Your task to perform on an android device: turn off location history Image 0: 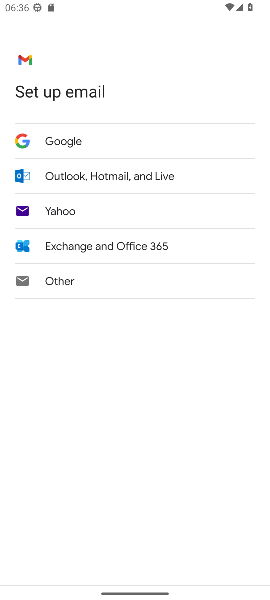
Step 0: press home button
Your task to perform on an android device: turn off location history Image 1: 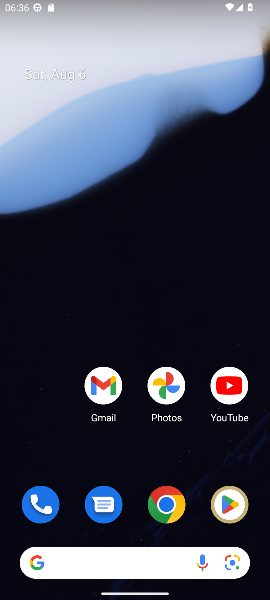
Step 1: drag from (127, 555) to (191, 204)
Your task to perform on an android device: turn off location history Image 2: 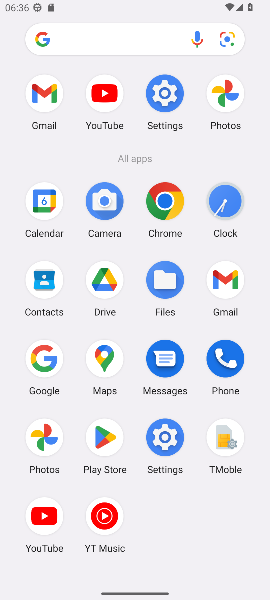
Step 2: click (163, 95)
Your task to perform on an android device: turn off location history Image 3: 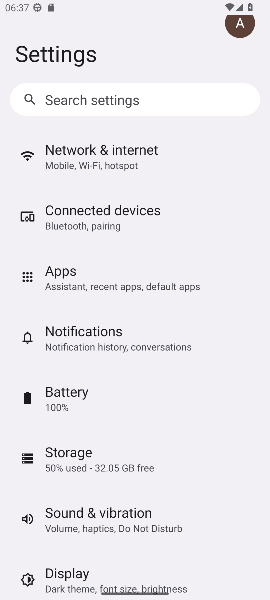
Step 3: drag from (119, 315) to (168, 248)
Your task to perform on an android device: turn off location history Image 4: 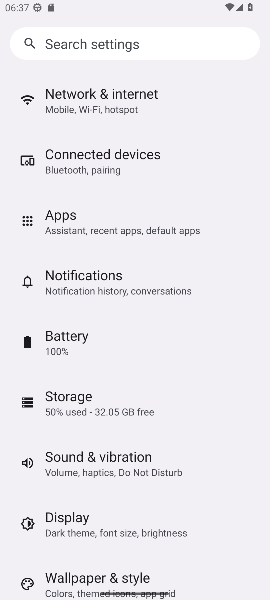
Step 4: drag from (161, 428) to (202, 351)
Your task to perform on an android device: turn off location history Image 5: 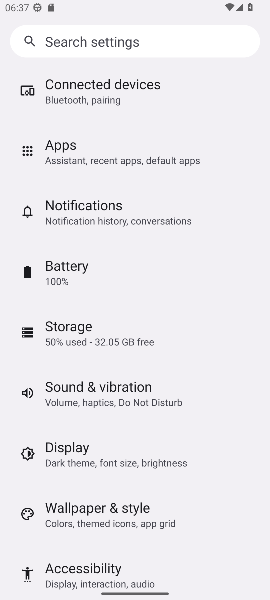
Step 5: drag from (122, 475) to (164, 416)
Your task to perform on an android device: turn off location history Image 6: 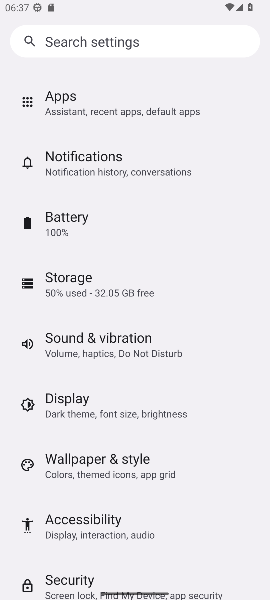
Step 6: drag from (130, 403) to (164, 319)
Your task to perform on an android device: turn off location history Image 7: 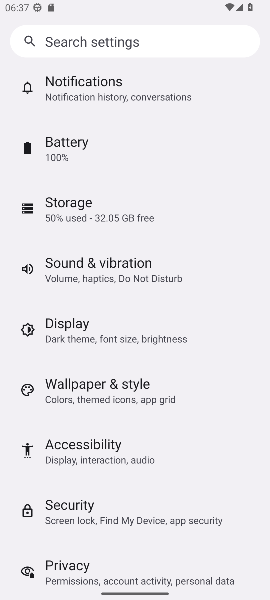
Step 7: drag from (112, 487) to (165, 401)
Your task to perform on an android device: turn off location history Image 8: 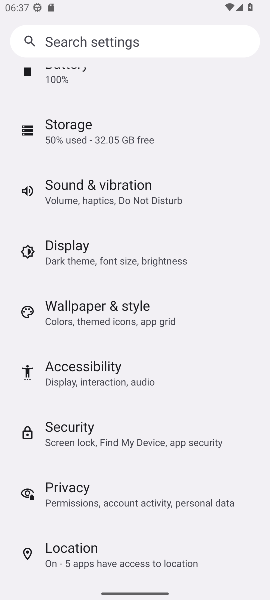
Step 8: drag from (104, 508) to (175, 399)
Your task to perform on an android device: turn off location history Image 9: 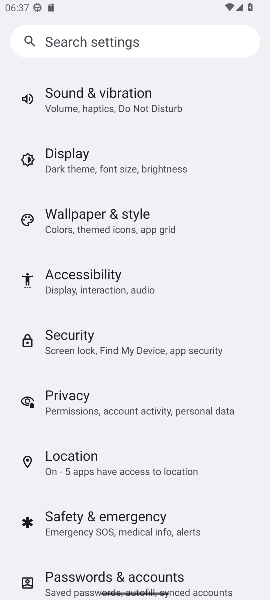
Step 9: click (139, 463)
Your task to perform on an android device: turn off location history Image 10: 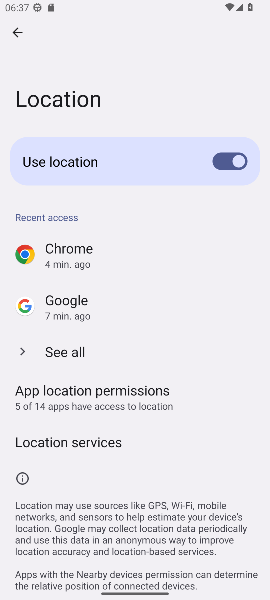
Step 10: click (84, 440)
Your task to perform on an android device: turn off location history Image 11: 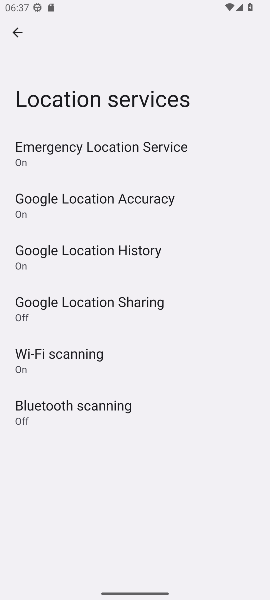
Step 11: click (135, 253)
Your task to perform on an android device: turn off location history Image 12: 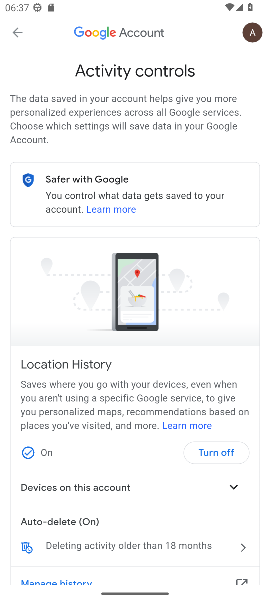
Step 12: click (221, 448)
Your task to perform on an android device: turn off location history Image 13: 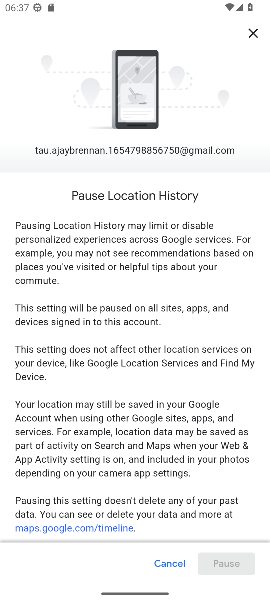
Step 13: drag from (173, 491) to (222, 343)
Your task to perform on an android device: turn off location history Image 14: 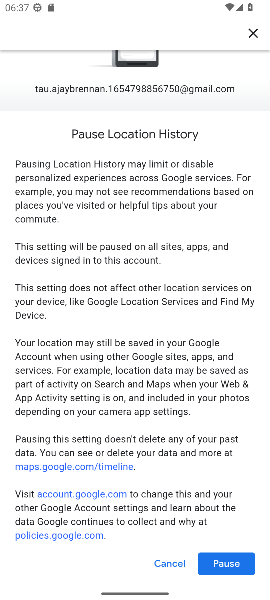
Step 14: click (218, 568)
Your task to perform on an android device: turn off location history Image 15: 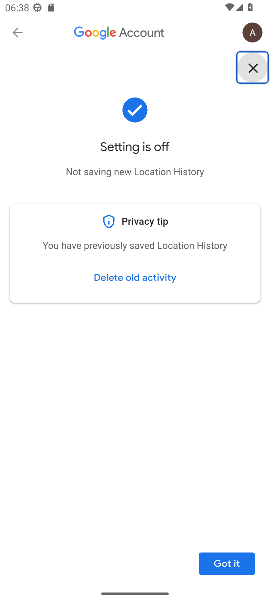
Step 15: click (218, 568)
Your task to perform on an android device: turn off location history Image 16: 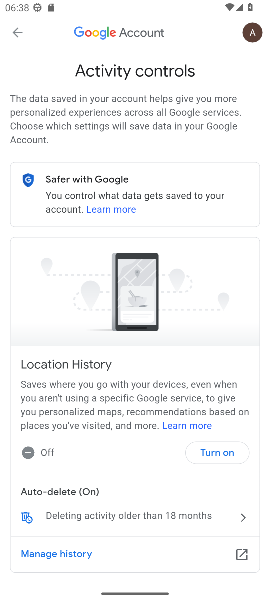
Step 16: task complete